Your task to perform on an android device: Clear the cart on amazon.com. Add usb-a to usb-b to the cart on amazon.com, then select checkout. Image 0: 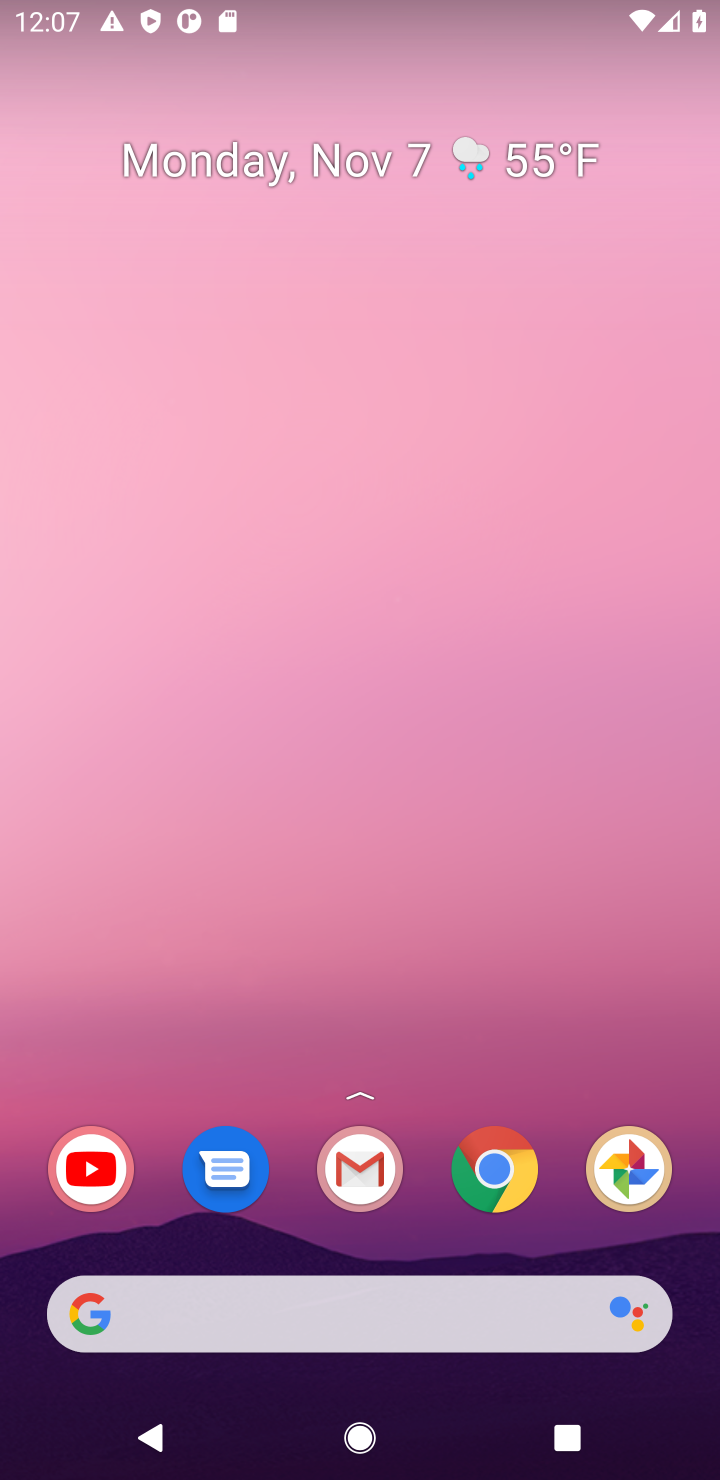
Step 0: click (497, 1124)
Your task to perform on an android device: Clear the cart on amazon.com. Add usb-a to usb-b to the cart on amazon.com, then select checkout. Image 1: 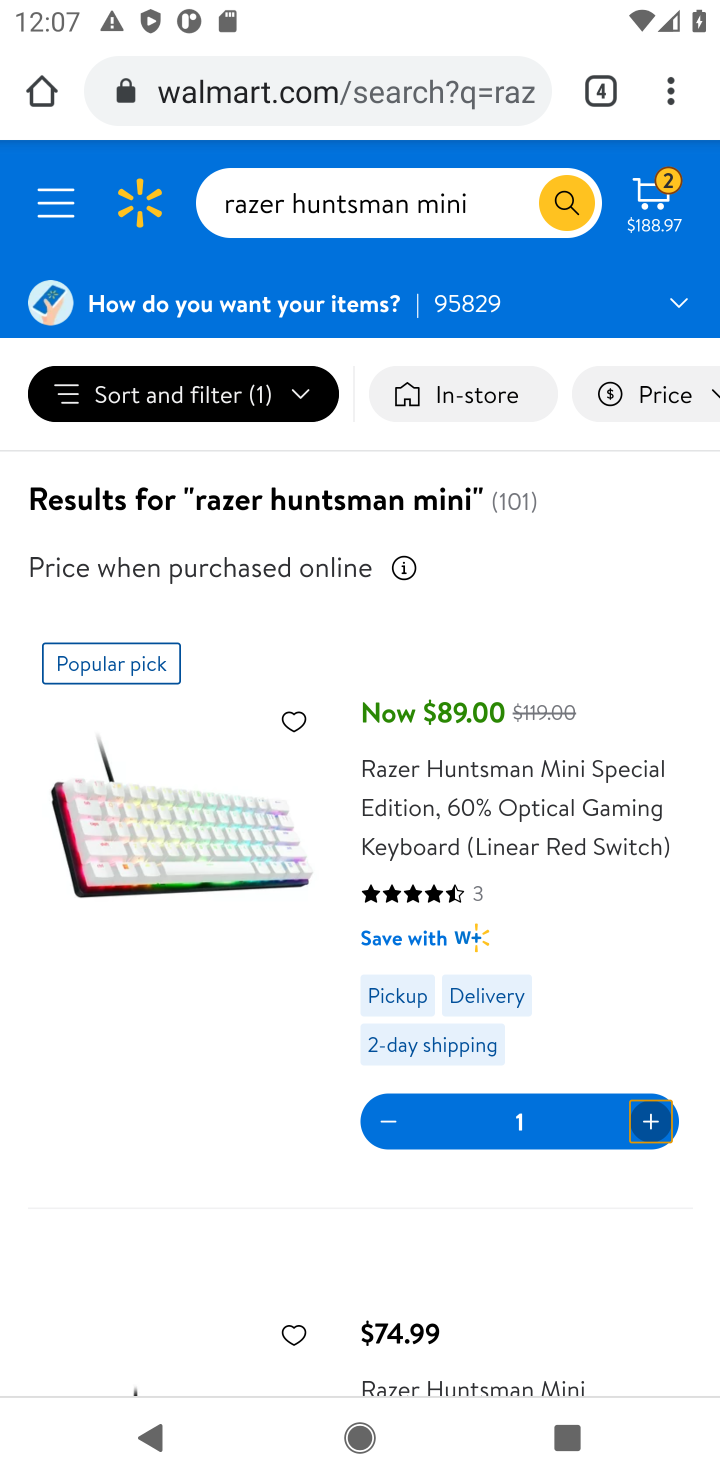
Step 1: click (607, 89)
Your task to perform on an android device: Clear the cart on amazon.com. Add usb-a to usb-b to the cart on amazon.com, then select checkout. Image 2: 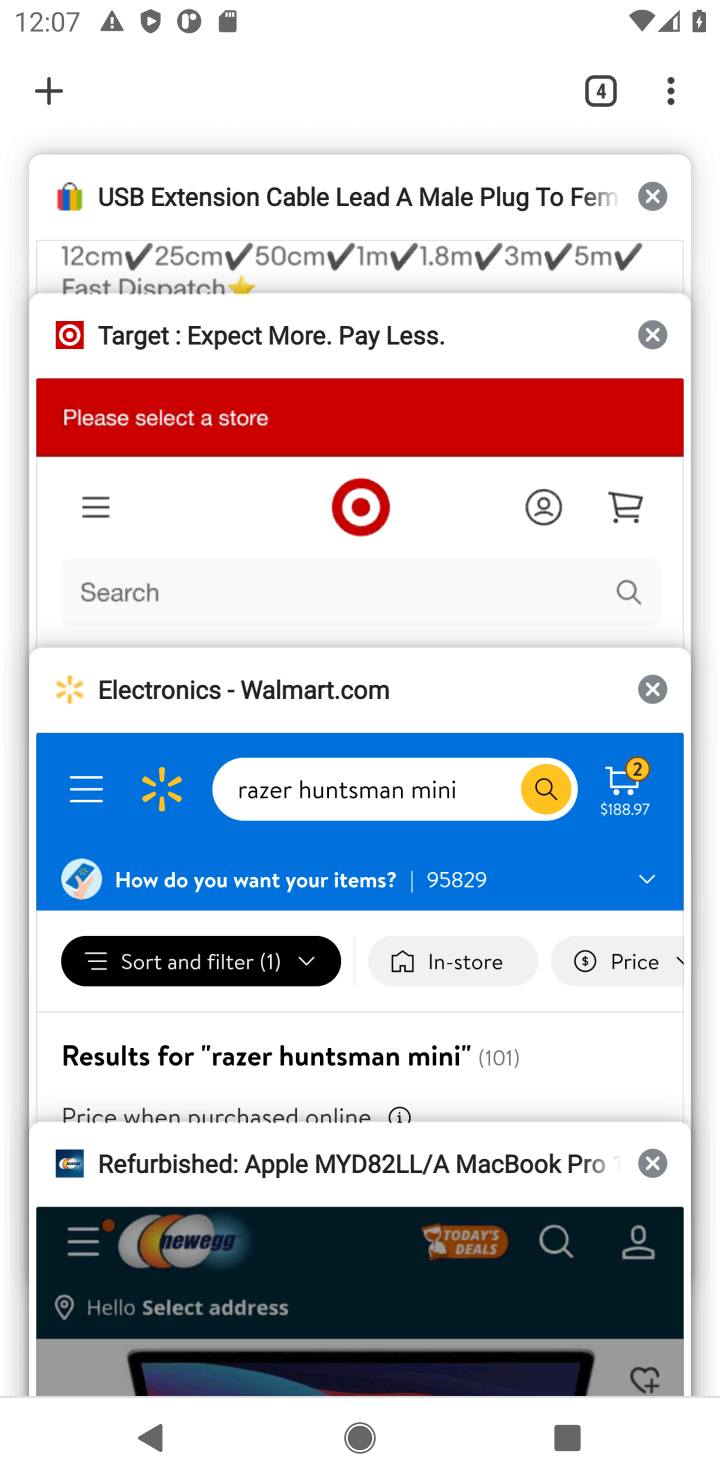
Step 2: click (44, 77)
Your task to perform on an android device: Clear the cart on amazon.com. Add usb-a to usb-b to the cart on amazon.com, then select checkout. Image 3: 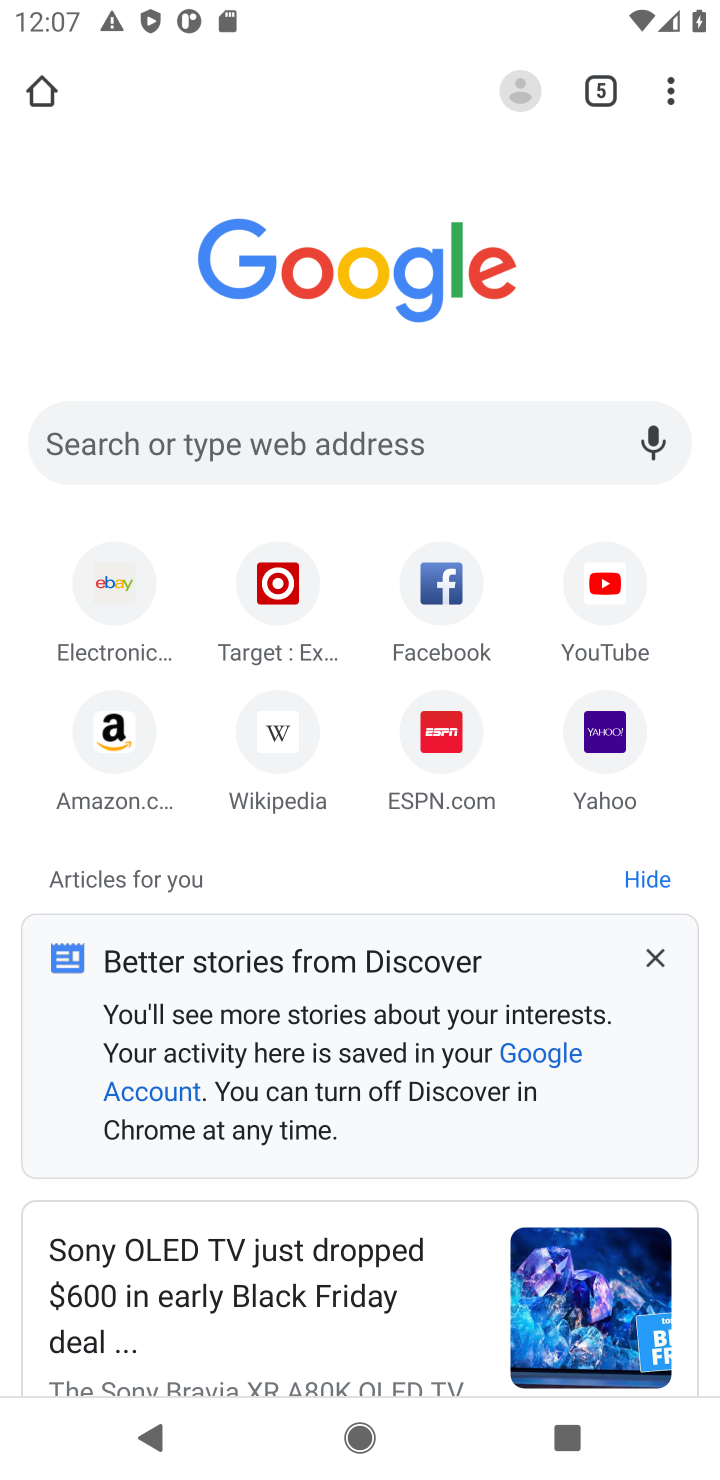
Step 3: click (361, 420)
Your task to perform on an android device: Clear the cart on amazon.com. Add usb-a to usb-b to the cart on amazon.com, then select checkout. Image 4: 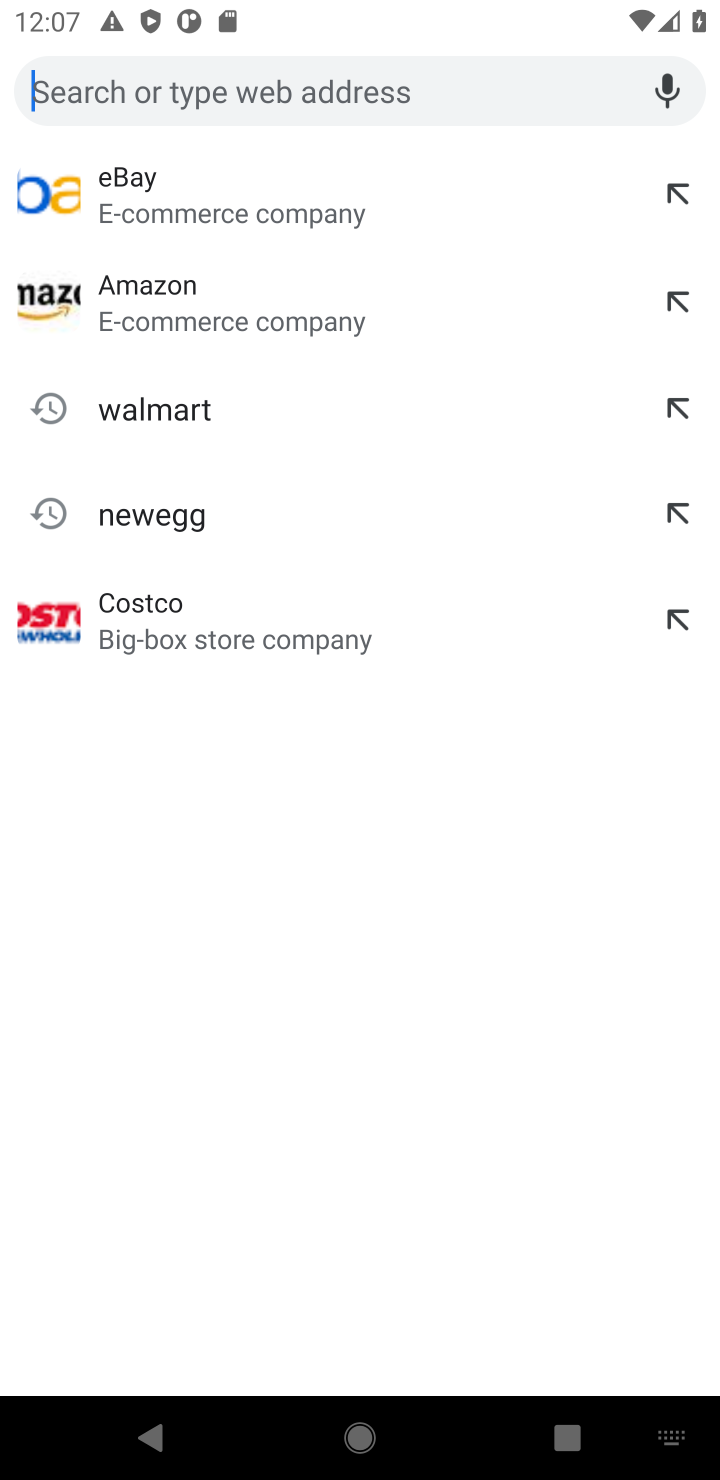
Step 4: click (342, 285)
Your task to perform on an android device: Clear the cart on amazon.com. Add usb-a to usb-b to the cart on amazon.com, then select checkout. Image 5: 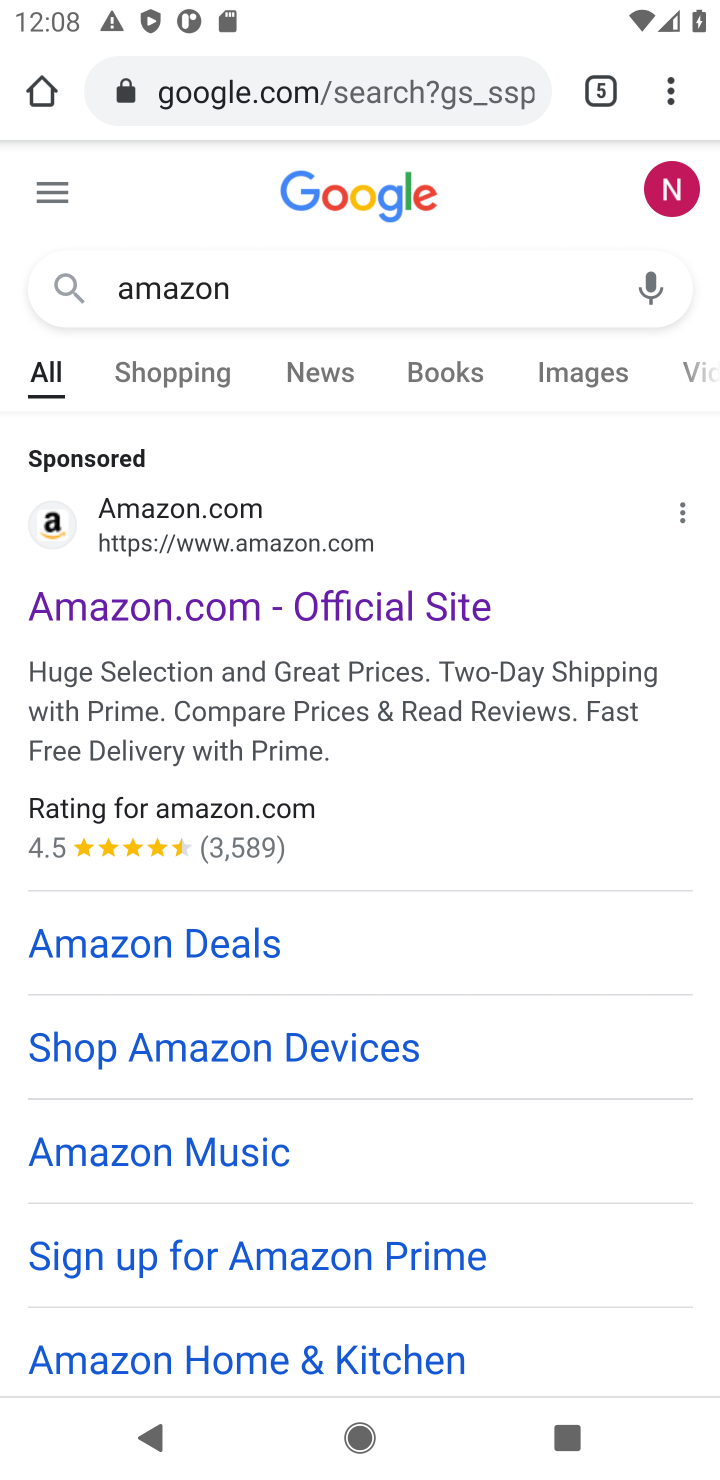
Step 5: click (327, 627)
Your task to perform on an android device: Clear the cart on amazon.com. Add usb-a to usb-b to the cart on amazon.com, then select checkout. Image 6: 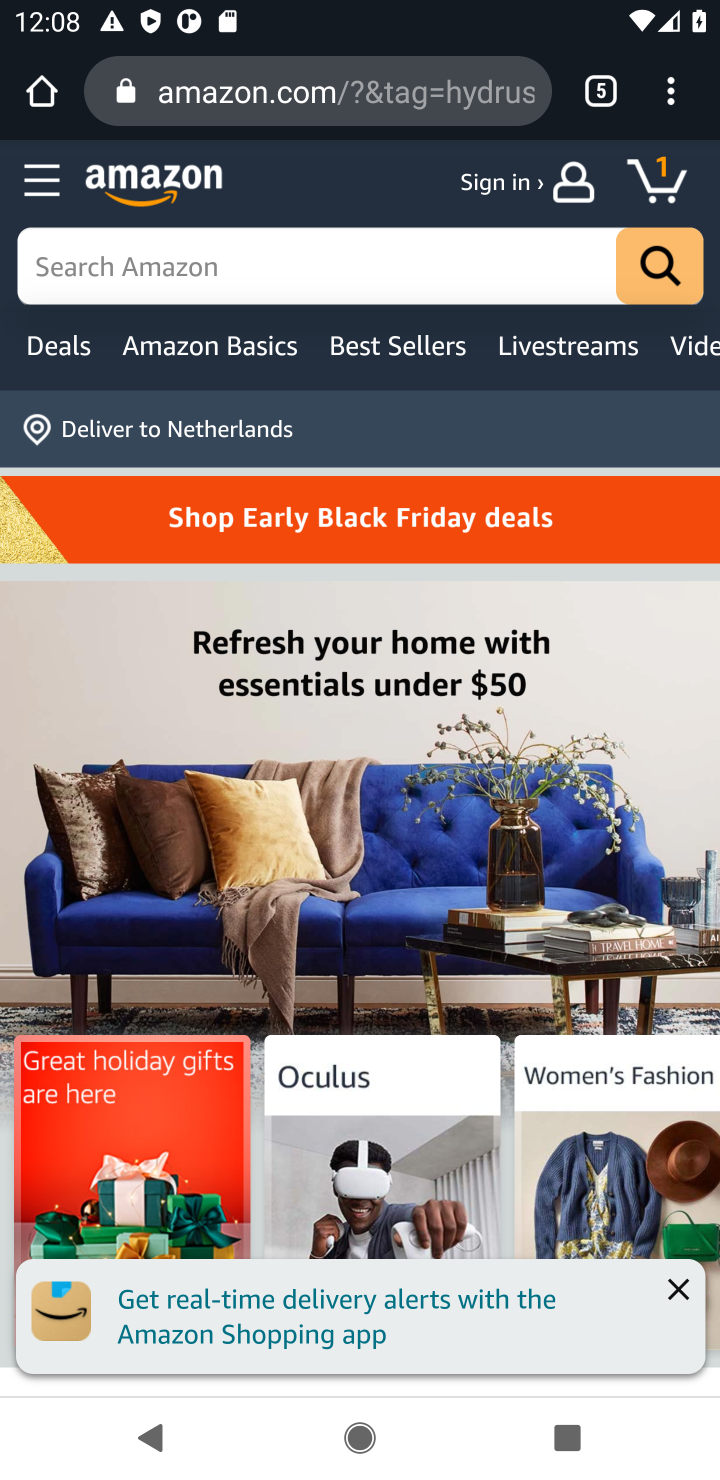
Step 6: click (272, 270)
Your task to perform on an android device: Clear the cart on amazon.com. Add usb-a to usb-b to the cart on amazon.com, then select checkout. Image 7: 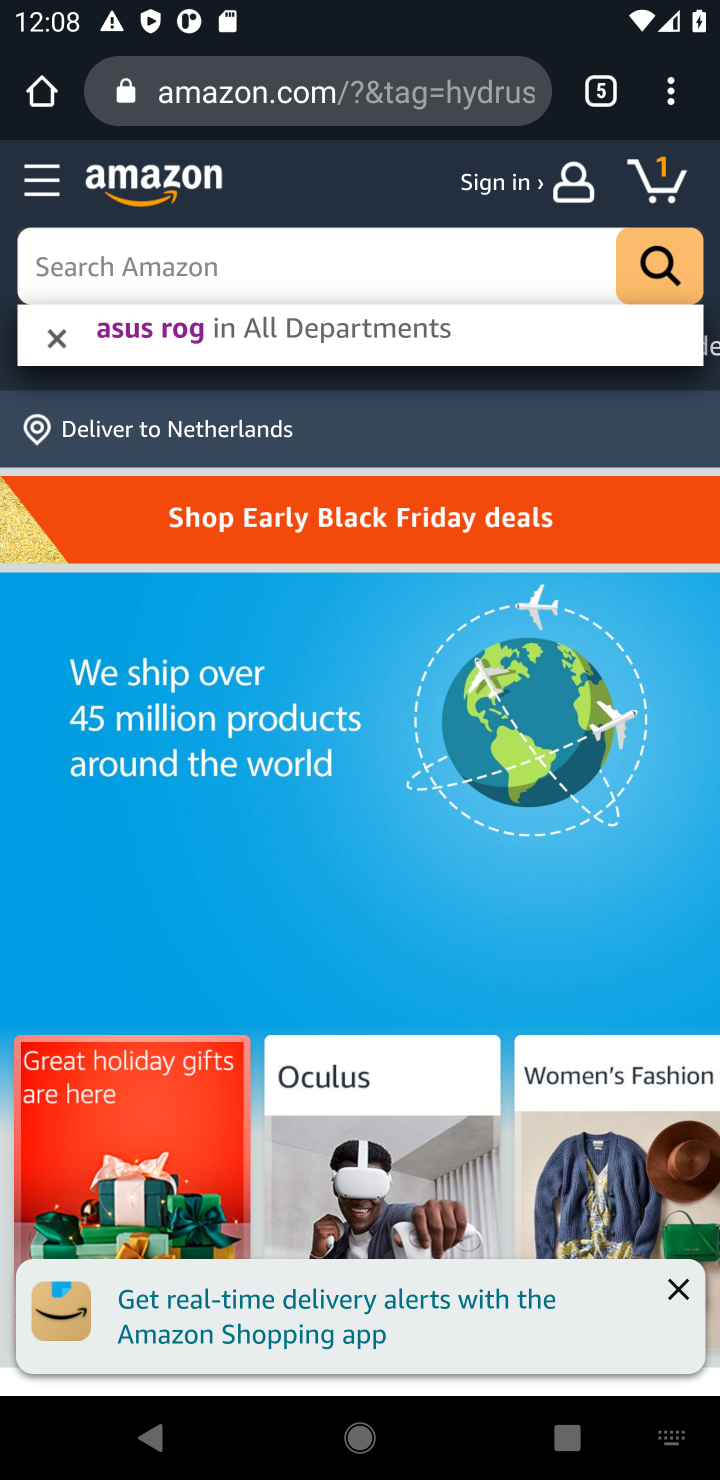
Step 7: type "usb-a to usb-b"
Your task to perform on an android device: Clear the cart on amazon.com. Add usb-a to usb-b to the cart on amazon.com, then select checkout. Image 8: 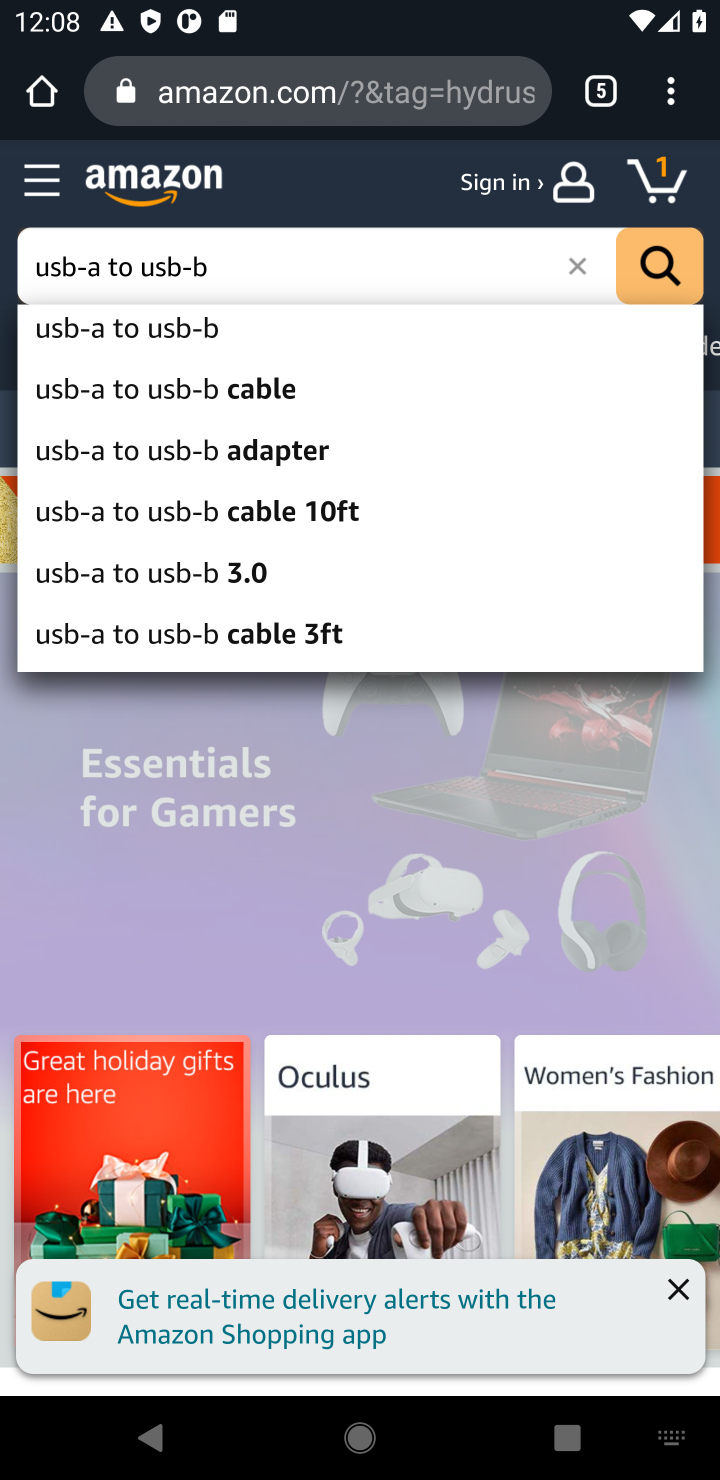
Step 8: click (130, 336)
Your task to perform on an android device: Clear the cart on amazon.com. Add usb-a to usb-b to the cart on amazon.com, then select checkout. Image 9: 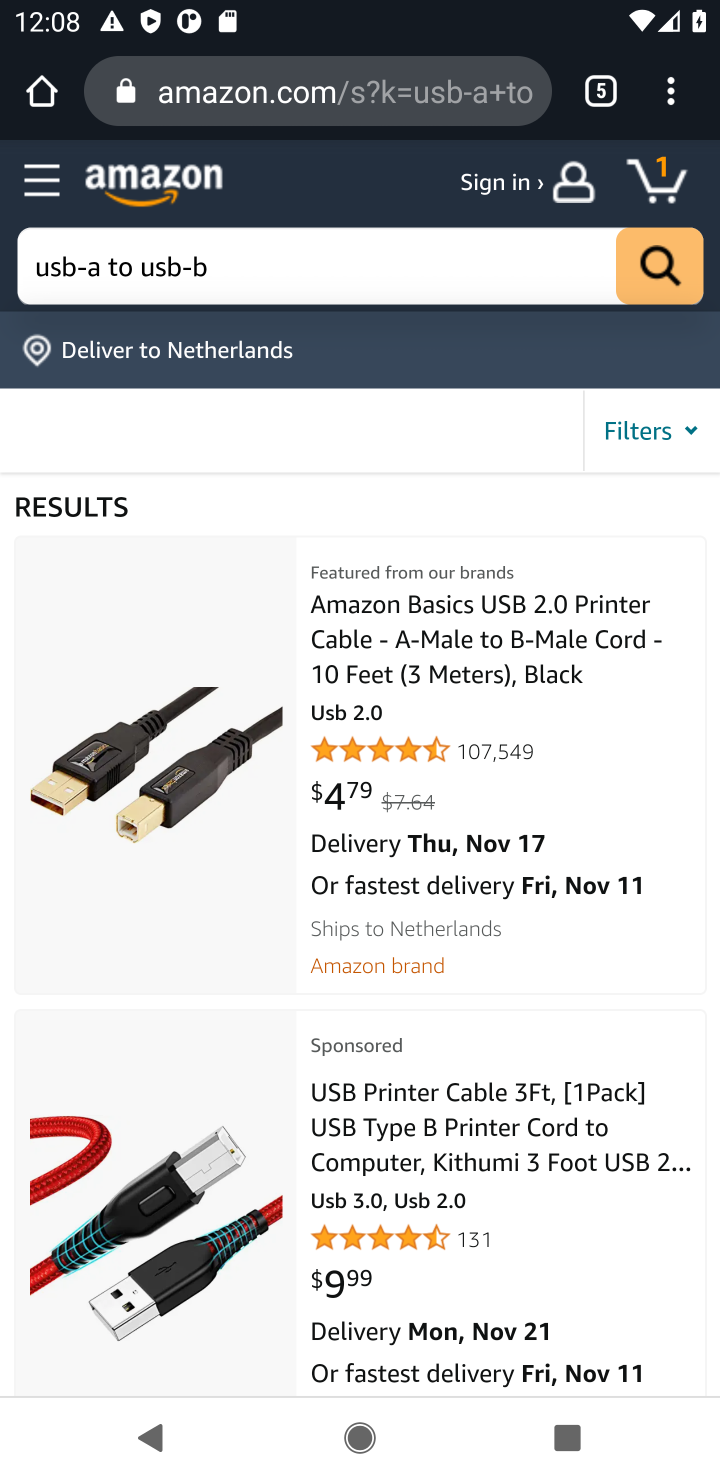
Step 9: click (407, 612)
Your task to perform on an android device: Clear the cart on amazon.com. Add usb-a to usb-b to the cart on amazon.com, then select checkout. Image 10: 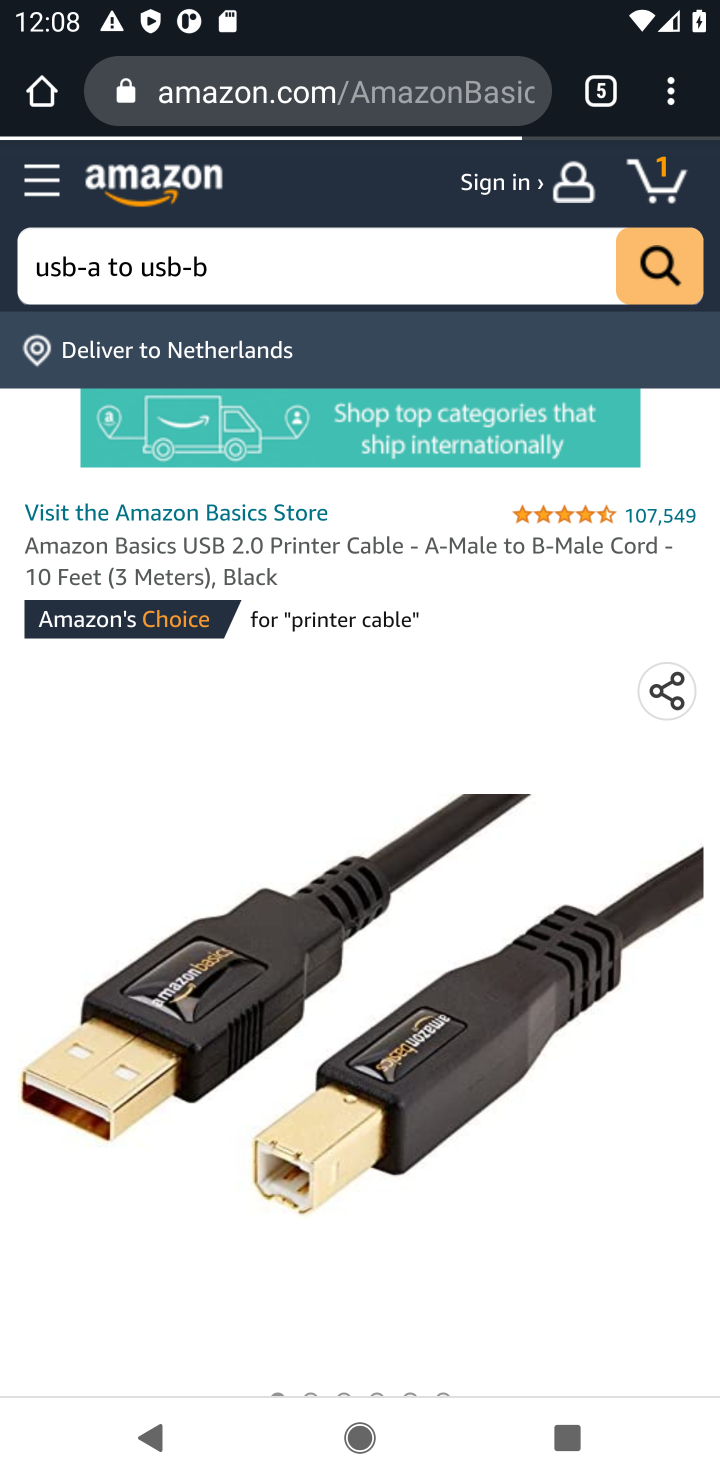
Step 10: drag from (273, 1274) to (398, 637)
Your task to perform on an android device: Clear the cart on amazon.com. Add usb-a to usb-b to the cart on amazon.com, then select checkout. Image 11: 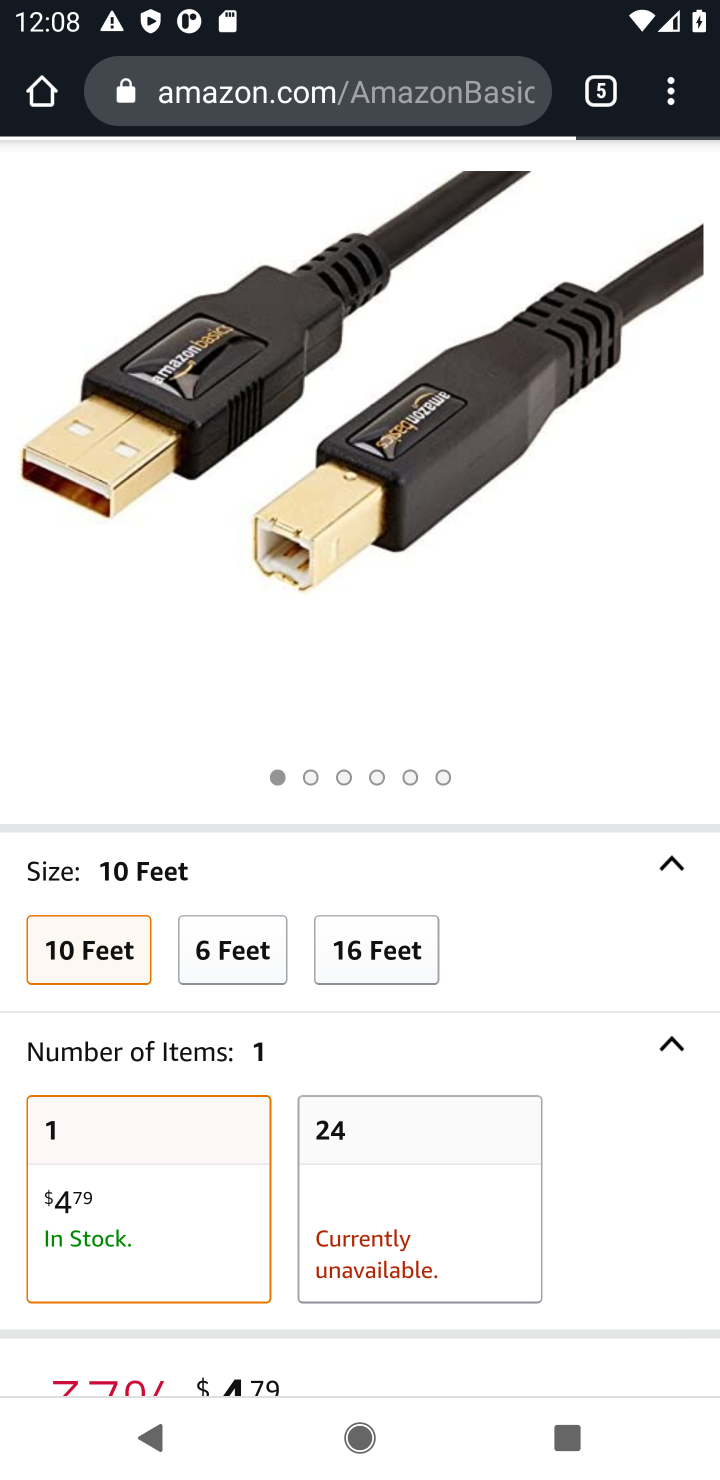
Step 11: drag from (403, 1045) to (555, 453)
Your task to perform on an android device: Clear the cart on amazon.com. Add usb-a to usb-b to the cart on amazon.com, then select checkout. Image 12: 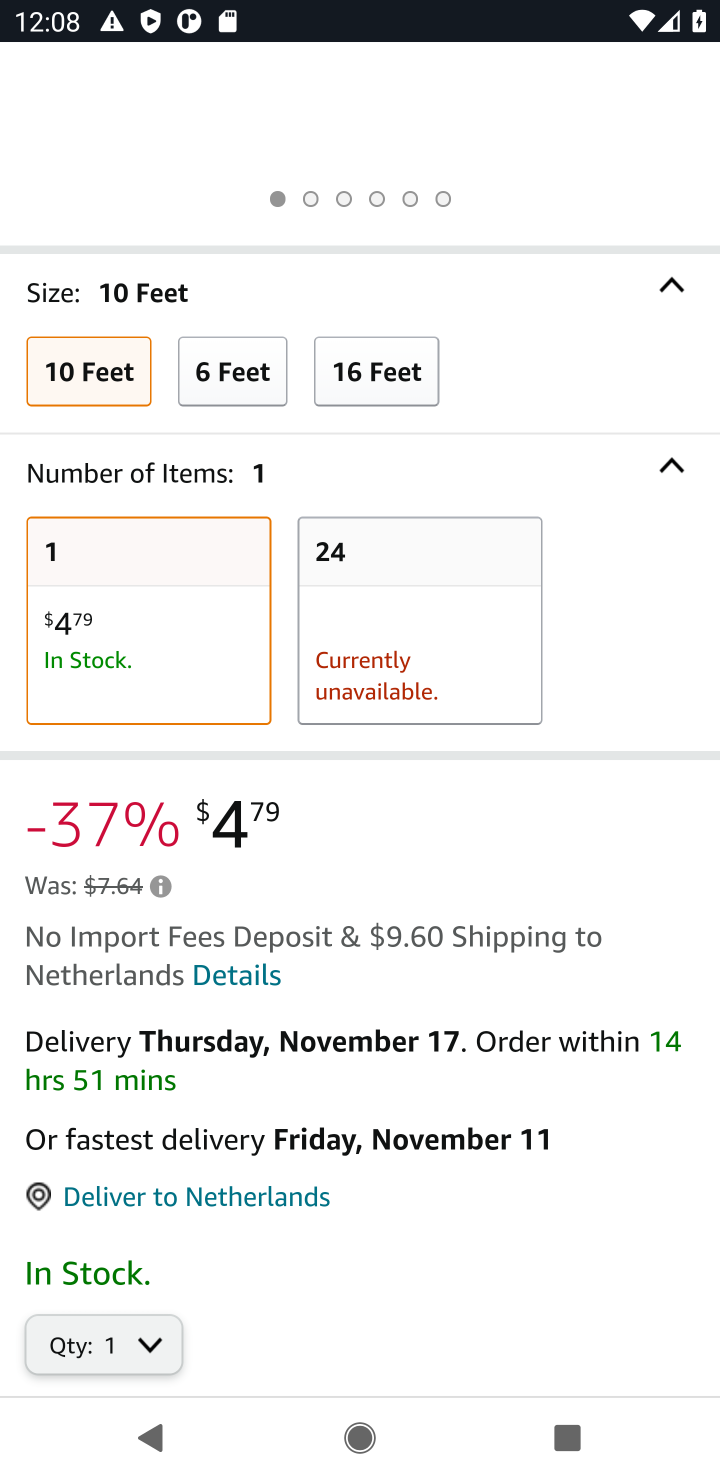
Step 12: drag from (226, 1098) to (407, 725)
Your task to perform on an android device: Clear the cart on amazon.com. Add usb-a to usb-b to the cart on amazon.com, then select checkout. Image 13: 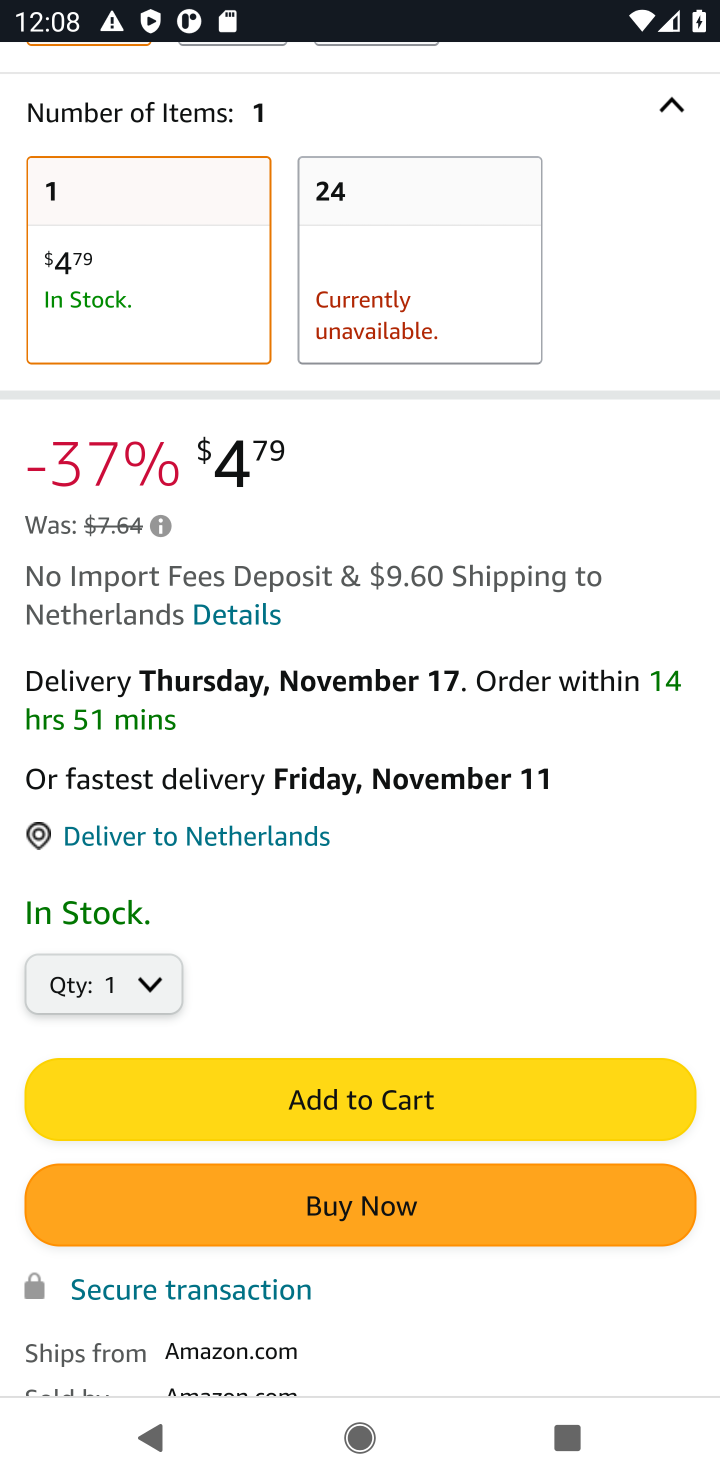
Step 13: click (317, 1090)
Your task to perform on an android device: Clear the cart on amazon.com. Add usb-a to usb-b to the cart on amazon.com, then select checkout. Image 14: 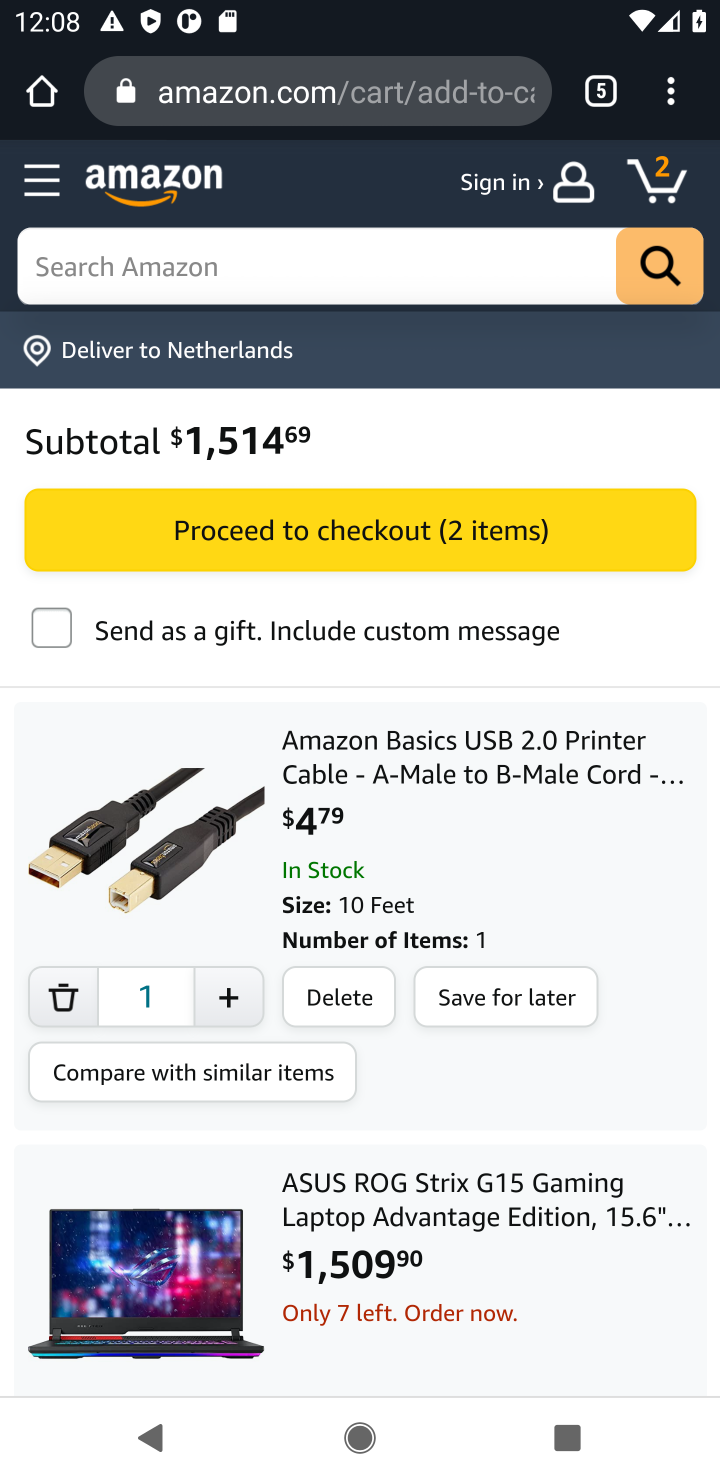
Step 14: click (405, 543)
Your task to perform on an android device: Clear the cart on amazon.com. Add usb-a to usb-b to the cart on amazon.com, then select checkout. Image 15: 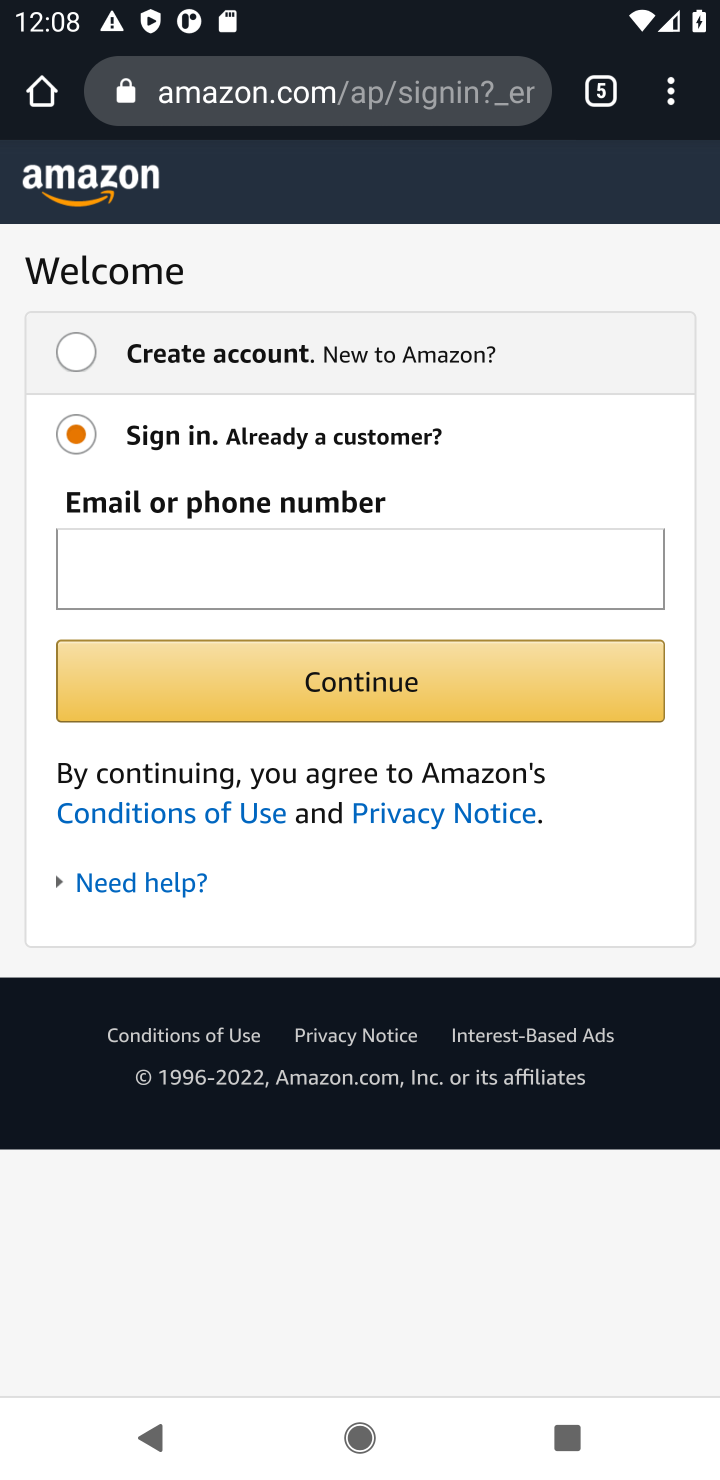
Step 15: task complete